Your task to perform on an android device: Search for the best selling books Image 0: 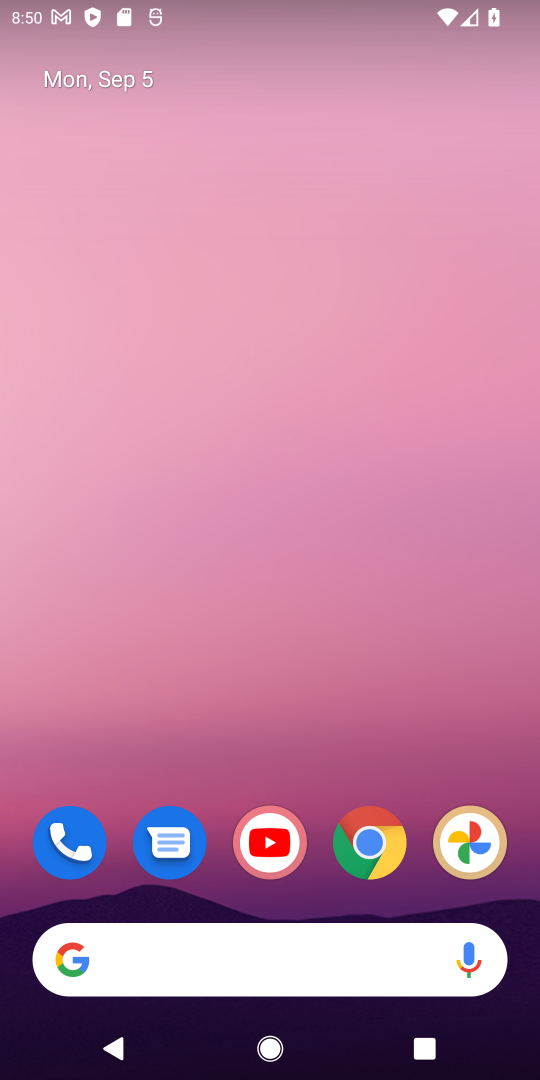
Step 0: drag from (351, 651) to (423, 0)
Your task to perform on an android device: Search for the best selling books Image 1: 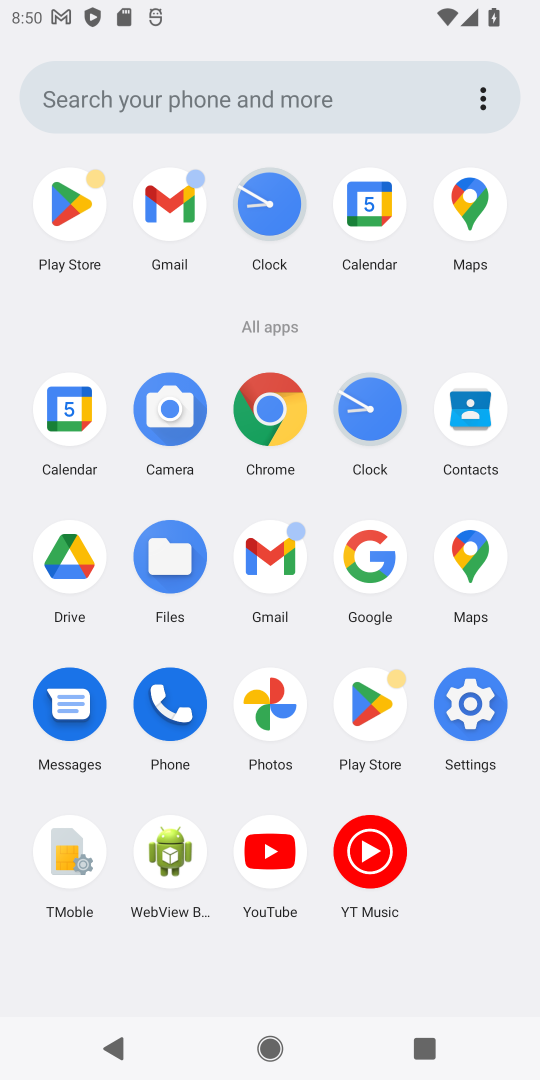
Step 1: click (267, 417)
Your task to perform on an android device: Search for the best selling books Image 2: 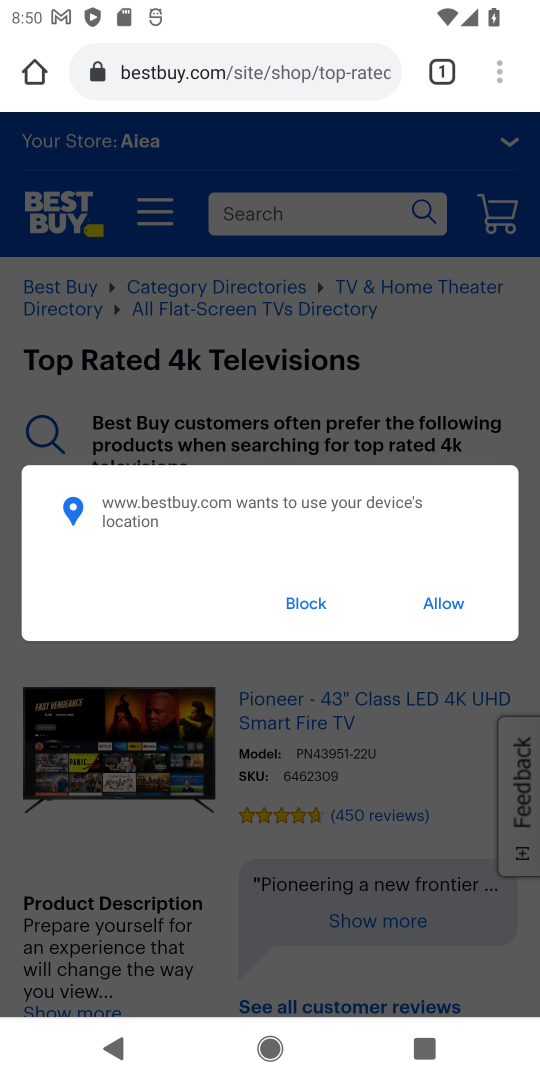
Step 2: click (316, 588)
Your task to perform on an android device: Search for the best selling books Image 3: 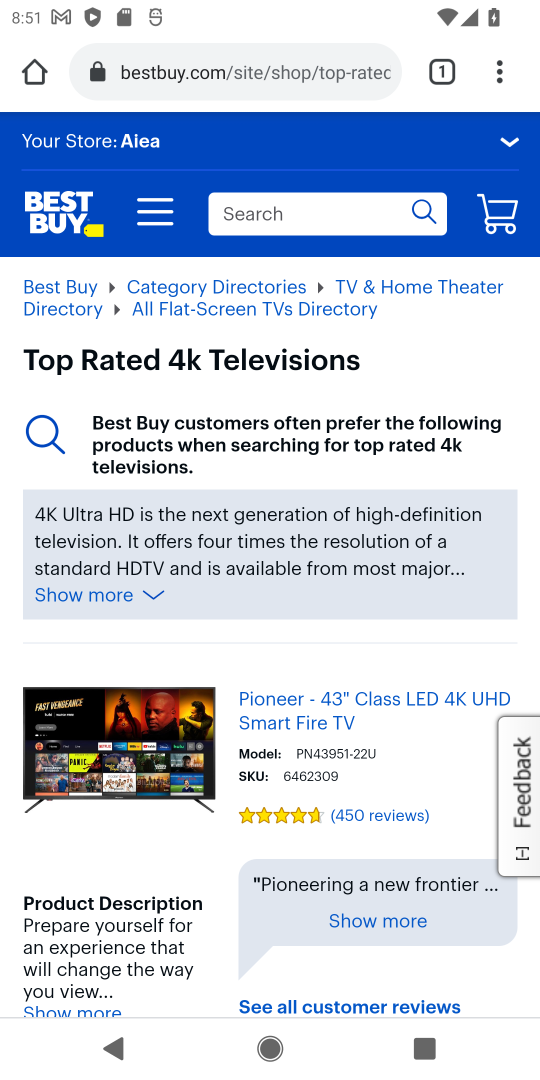
Step 3: click (289, 74)
Your task to perform on an android device: Search for the best selling books Image 4: 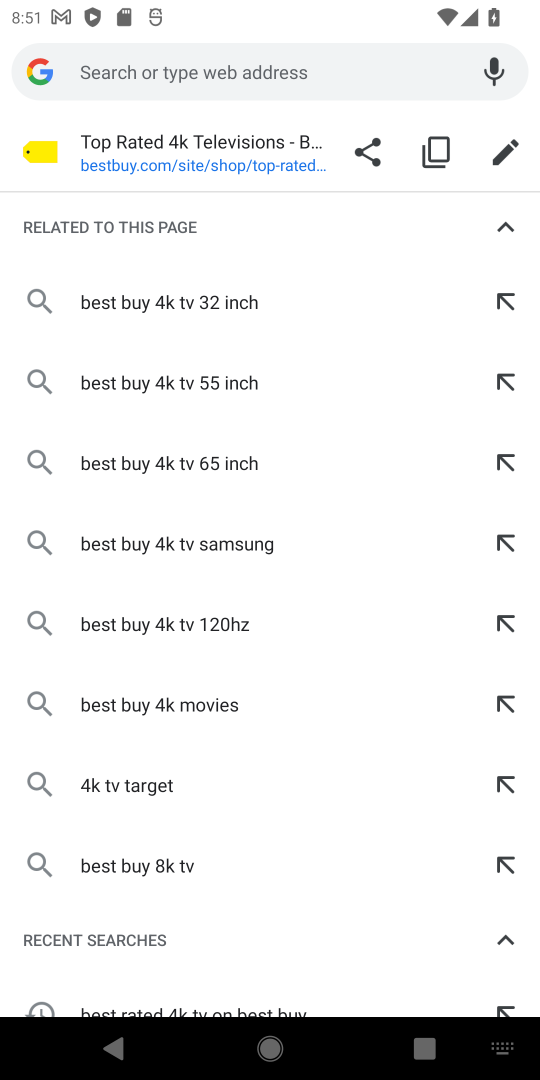
Step 4: type "best selling book"
Your task to perform on an android device: Search for the best selling books Image 5: 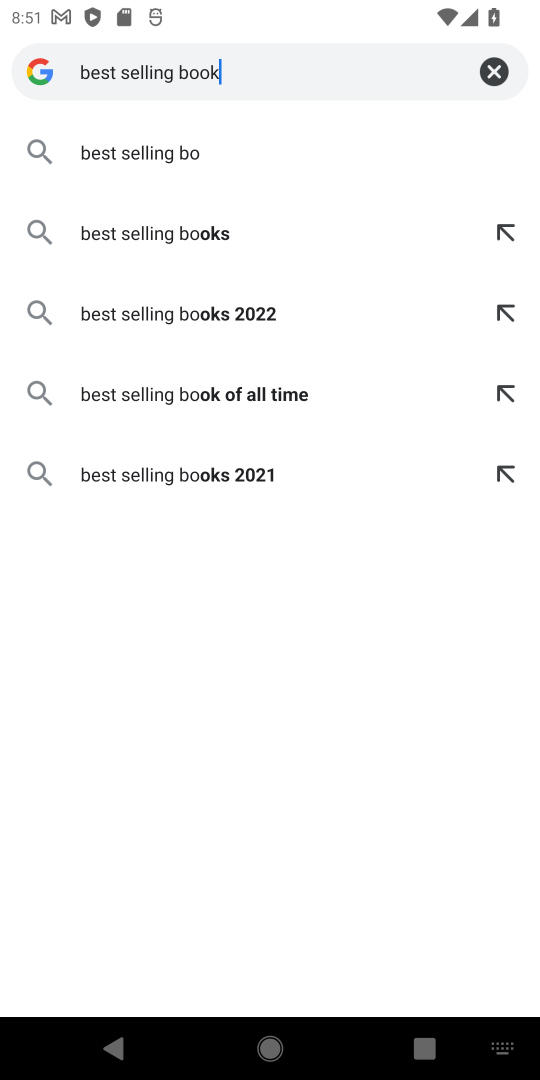
Step 5: type "s"
Your task to perform on an android device: Search for the best selling books Image 6: 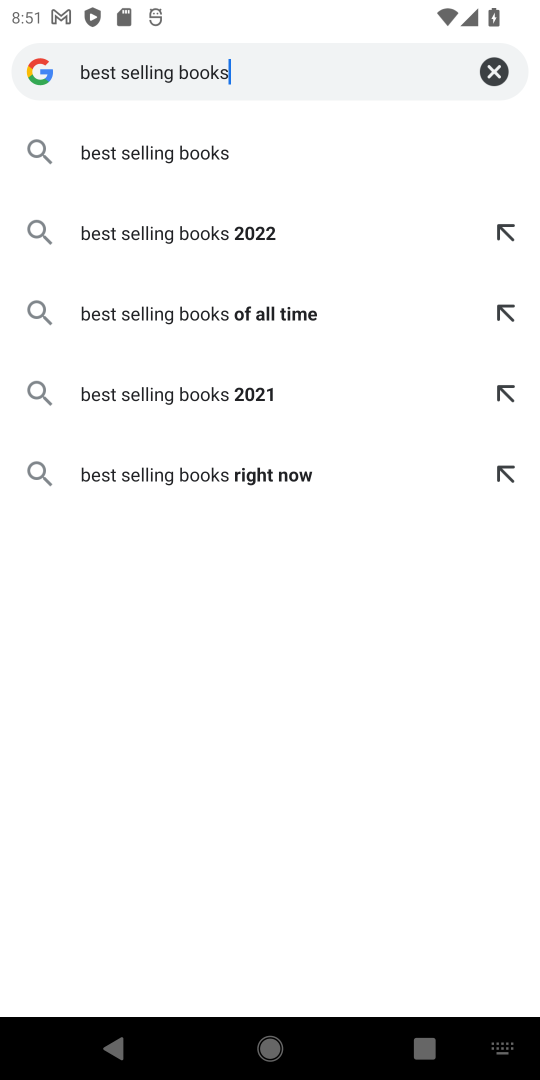
Step 6: press enter
Your task to perform on an android device: Search for the best selling books Image 7: 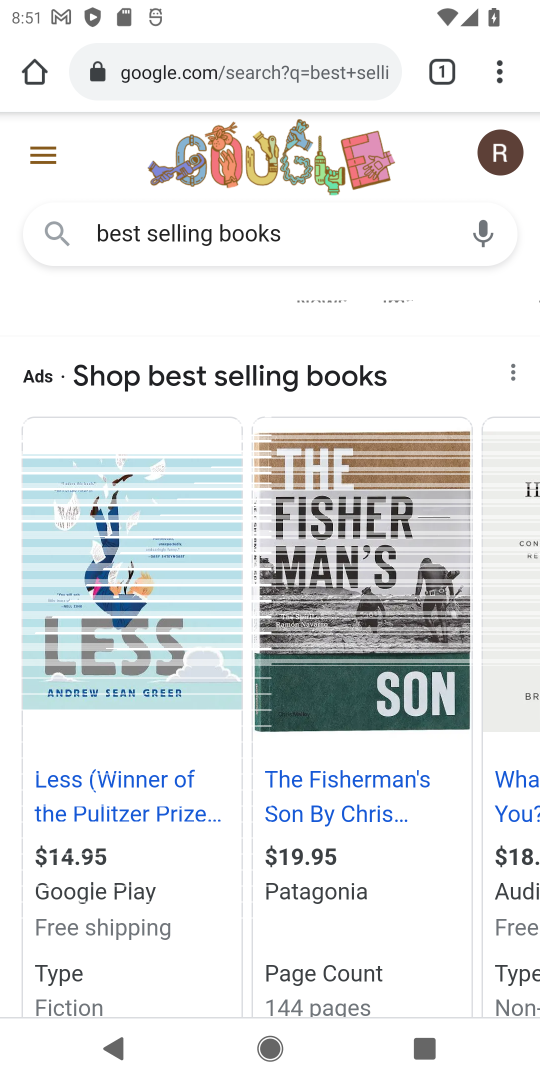
Step 7: drag from (192, 749) to (217, 343)
Your task to perform on an android device: Search for the best selling books Image 8: 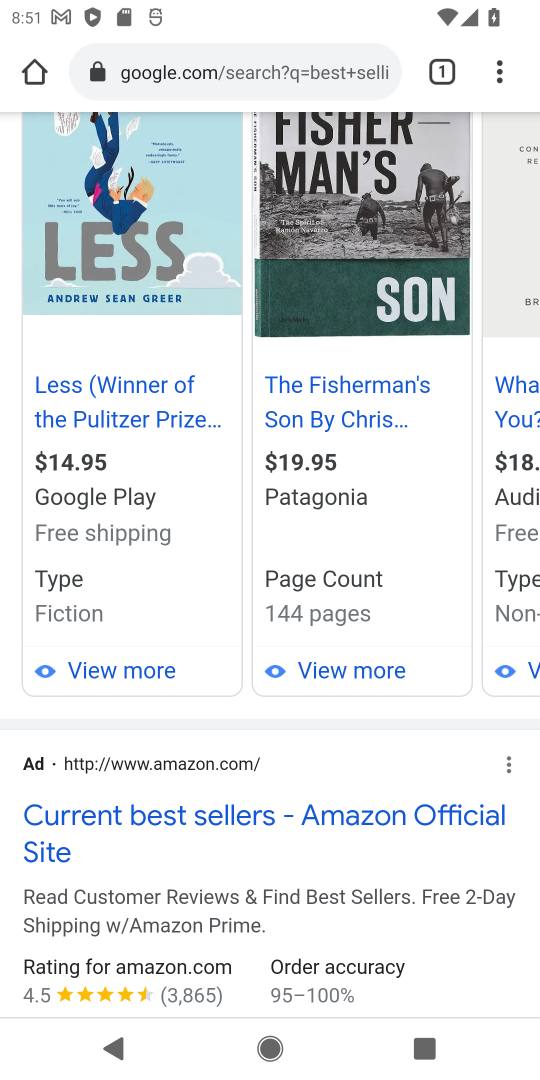
Step 8: drag from (287, 646) to (340, 266)
Your task to perform on an android device: Search for the best selling books Image 9: 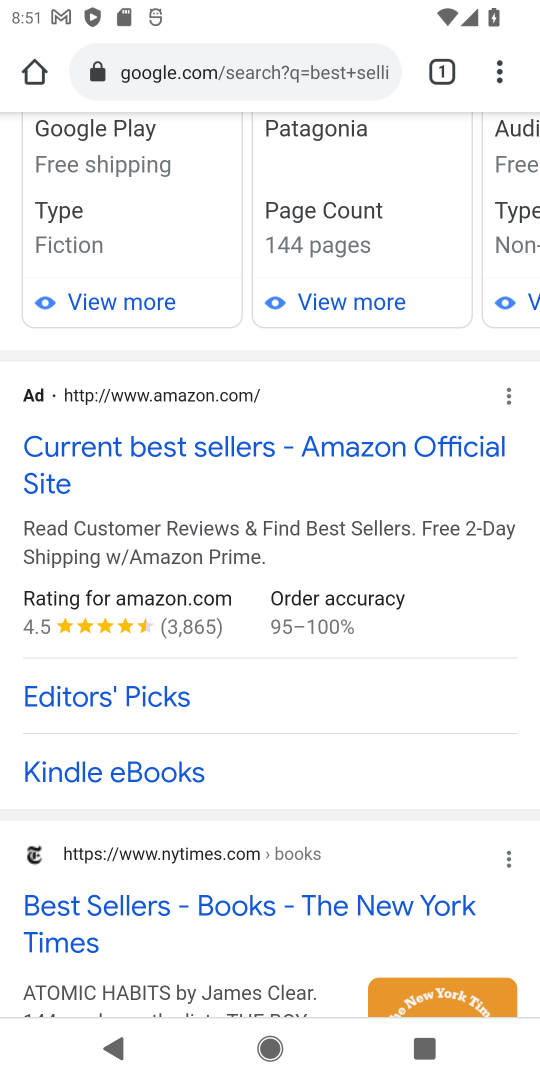
Step 9: drag from (309, 809) to (407, 494)
Your task to perform on an android device: Search for the best selling books Image 10: 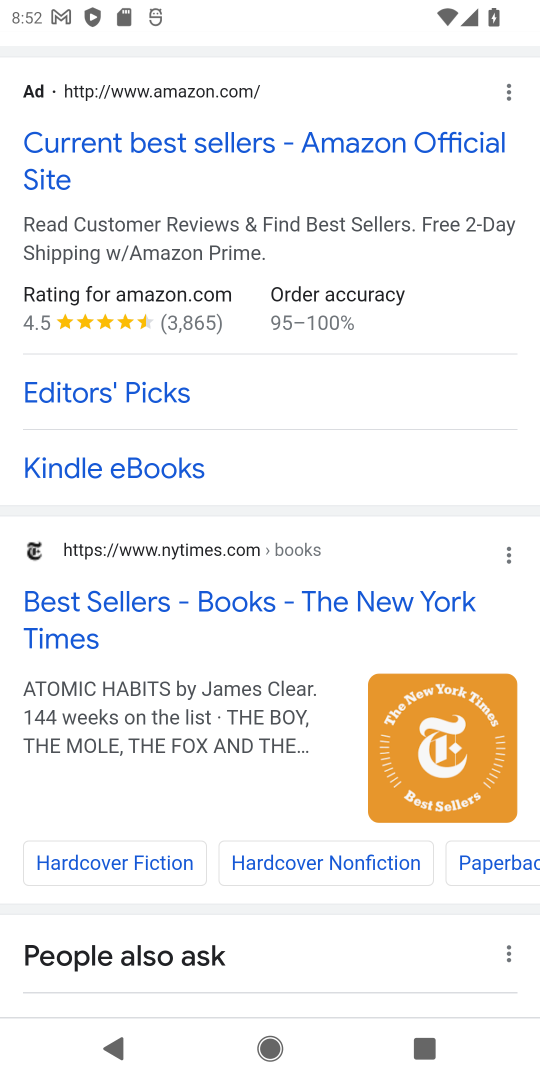
Step 10: click (200, 621)
Your task to perform on an android device: Search for the best selling books Image 11: 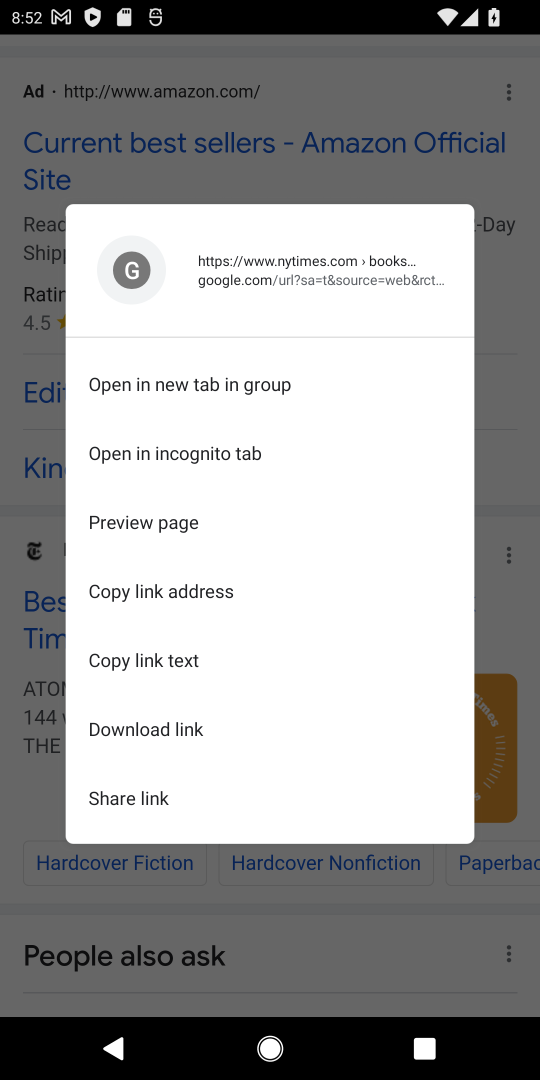
Step 11: click (79, 596)
Your task to perform on an android device: Search for the best selling books Image 12: 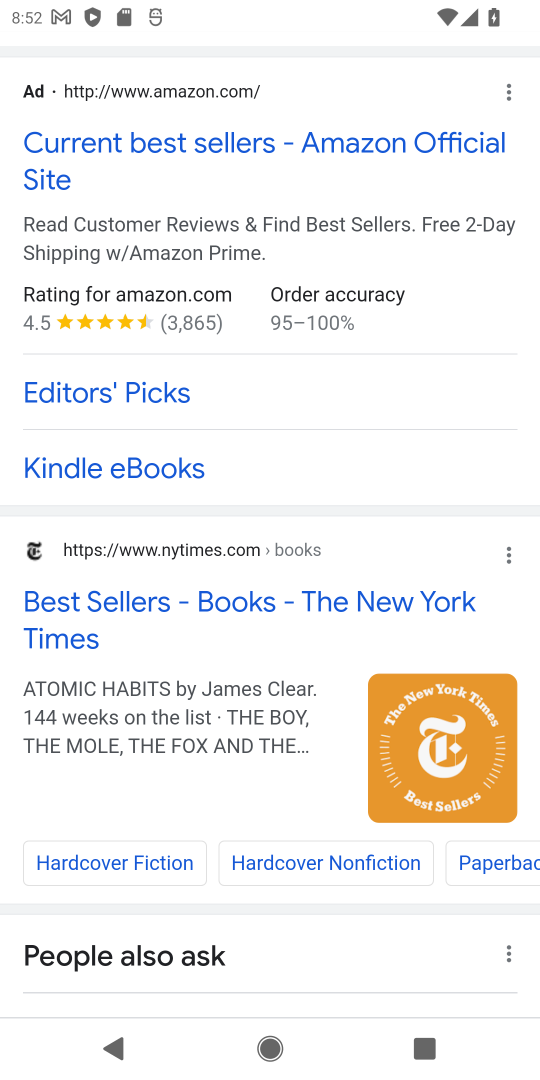
Step 12: click (79, 596)
Your task to perform on an android device: Search for the best selling books Image 13: 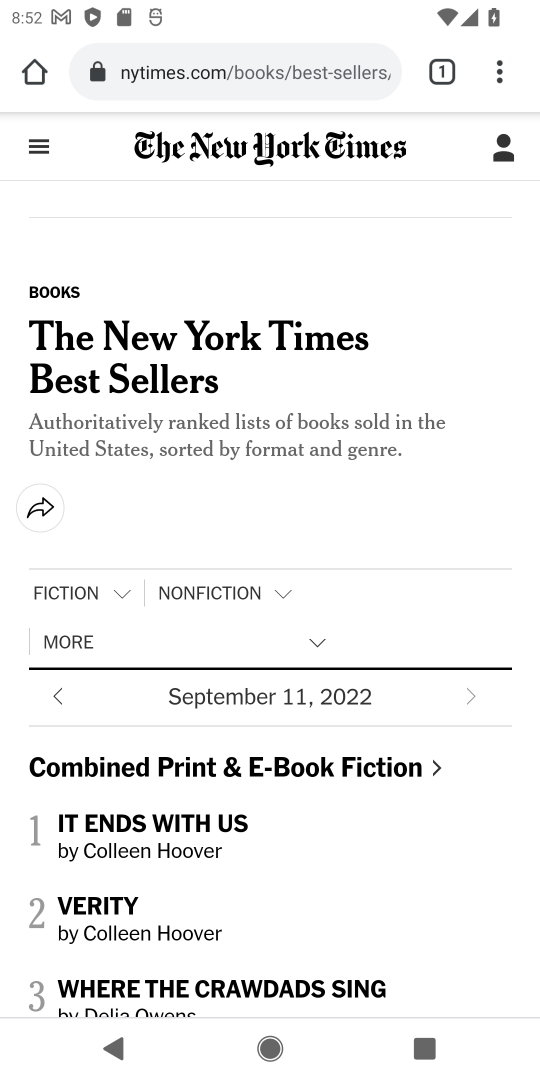
Step 13: task complete